Your task to perform on an android device: turn on sleep mode Image 0: 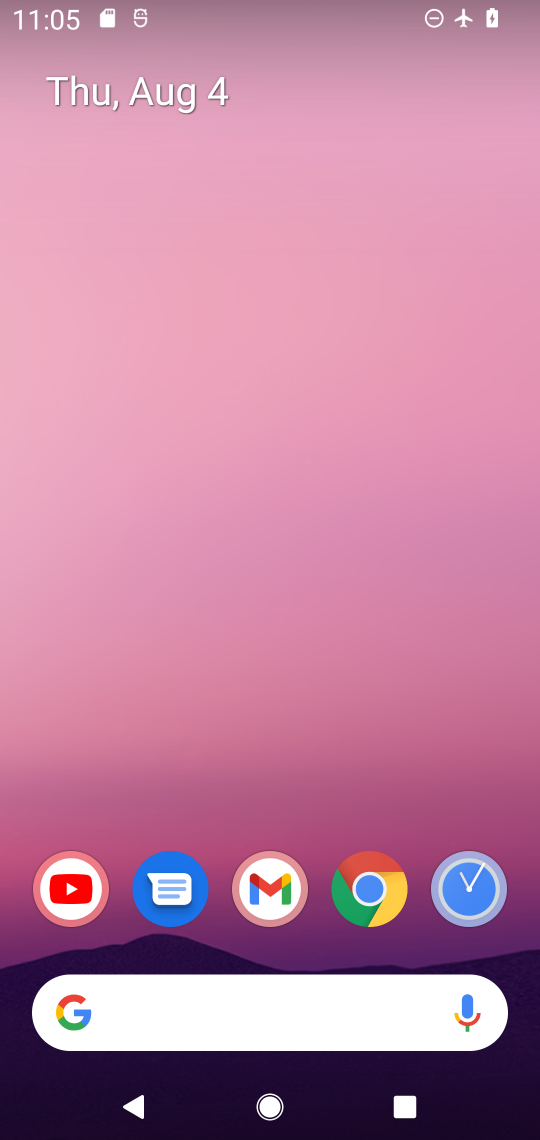
Step 0: press home button
Your task to perform on an android device: turn on sleep mode Image 1: 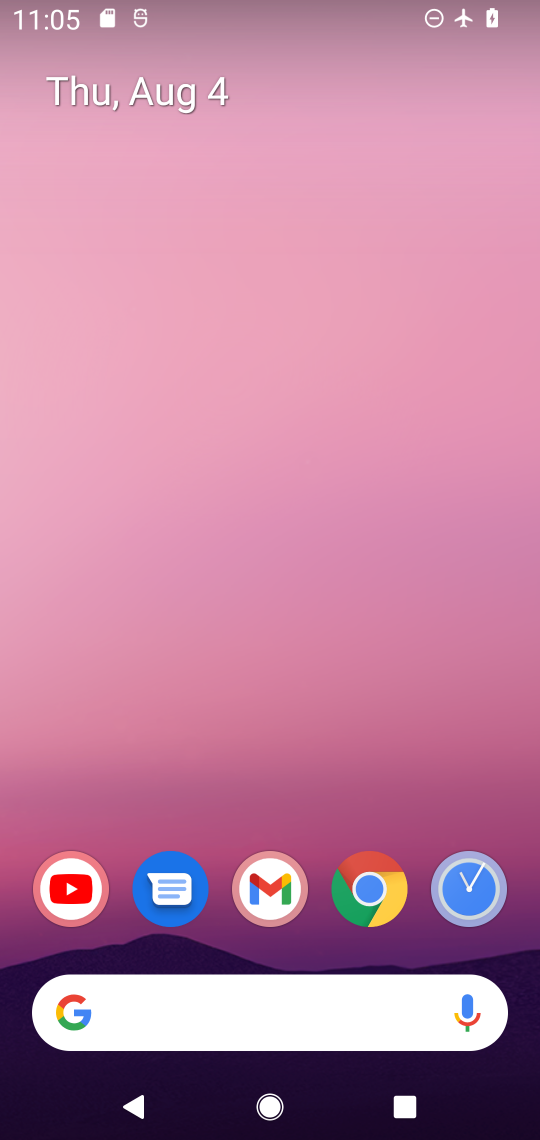
Step 1: drag from (339, 668) to (340, 259)
Your task to perform on an android device: turn on sleep mode Image 2: 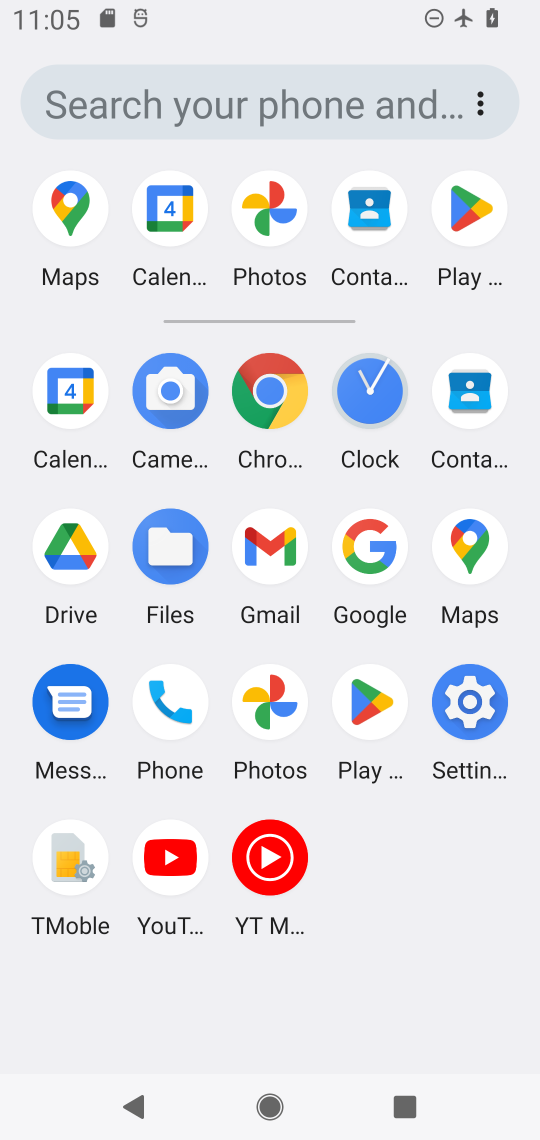
Step 2: click (468, 697)
Your task to perform on an android device: turn on sleep mode Image 3: 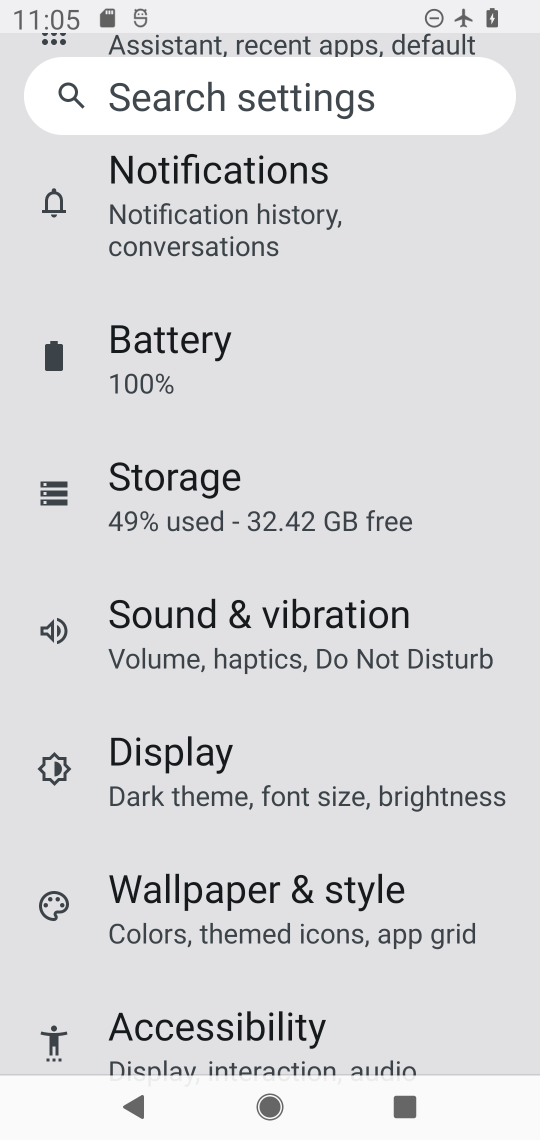
Step 3: drag from (449, 389) to (452, 600)
Your task to perform on an android device: turn on sleep mode Image 4: 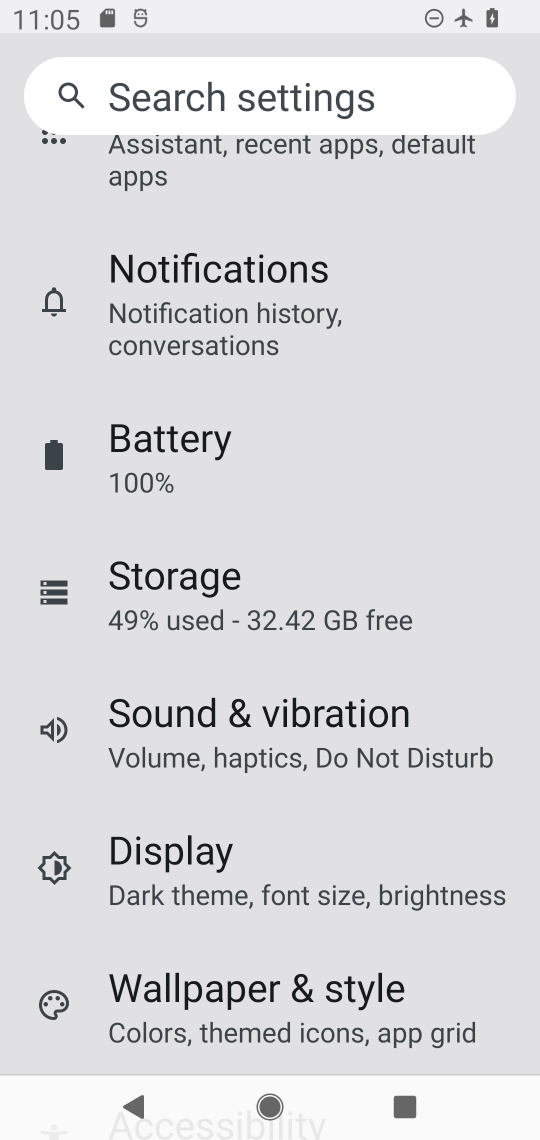
Step 4: drag from (435, 364) to (435, 525)
Your task to perform on an android device: turn on sleep mode Image 5: 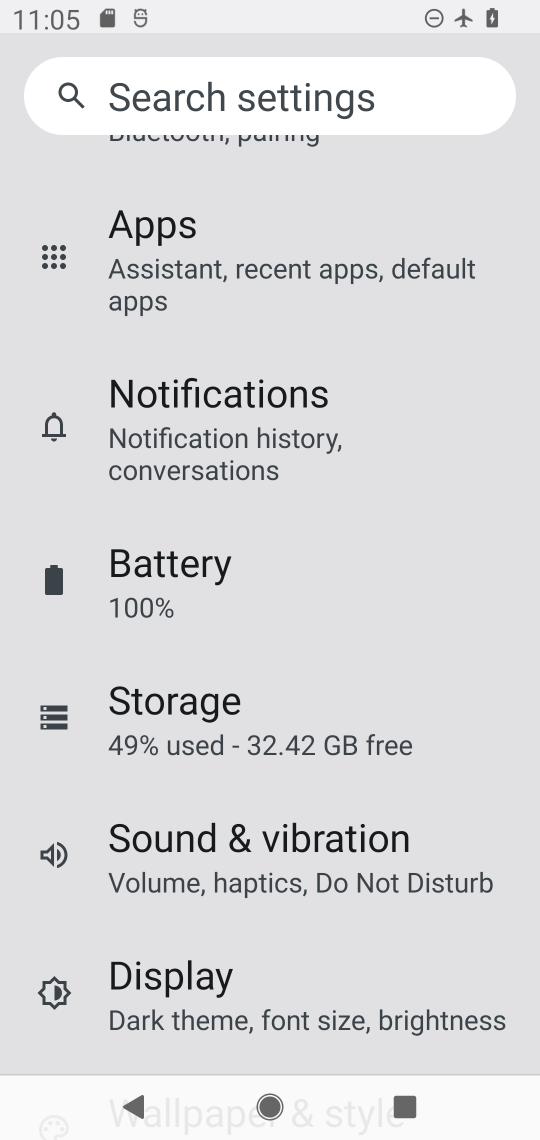
Step 5: drag from (431, 815) to (439, 648)
Your task to perform on an android device: turn on sleep mode Image 6: 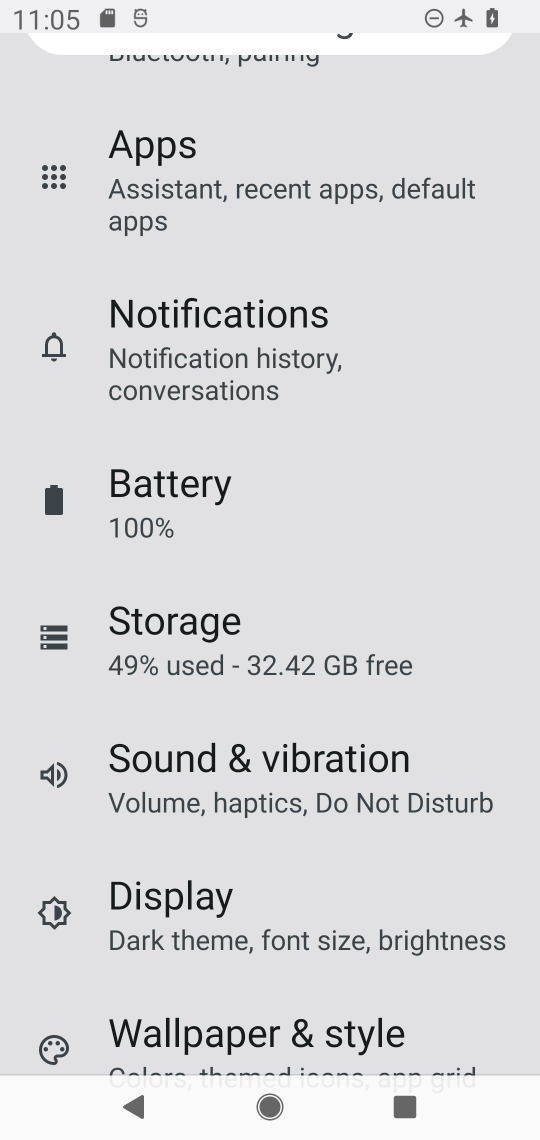
Step 6: drag from (433, 846) to (437, 592)
Your task to perform on an android device: turn on sleep mode Image 7: 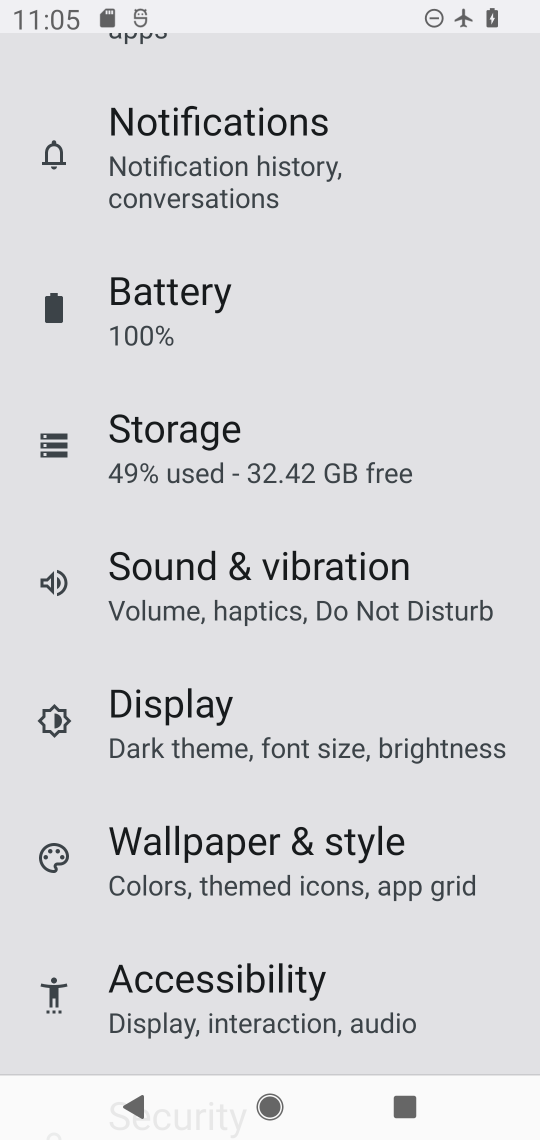
Step 7: drag from (476, 918) to (468, 645)
Your task to perform on an android device: turn on sleep mode Image 8: 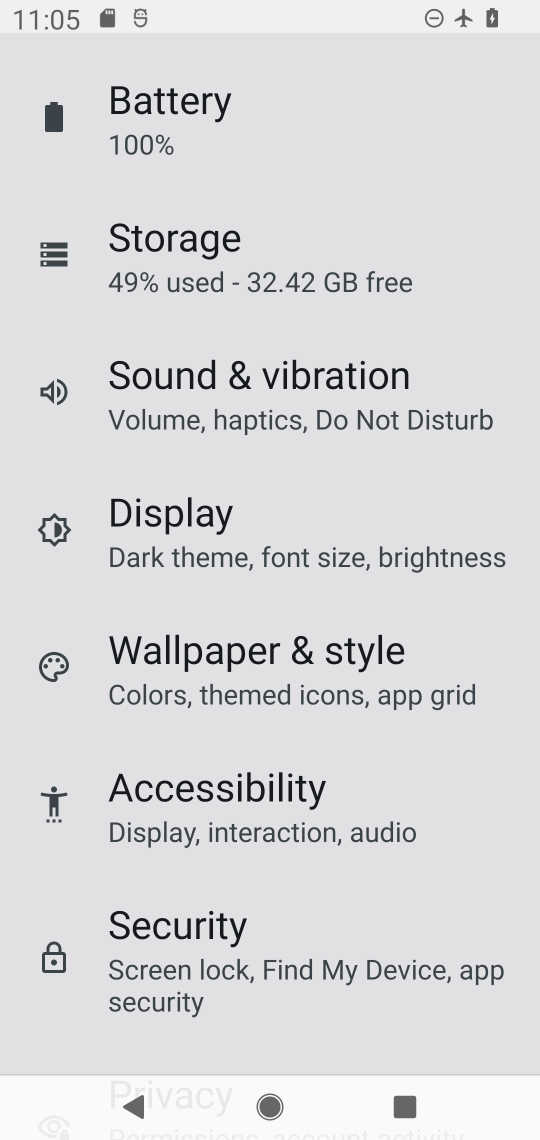
Step 8: click (393, 540)
Your task to perform on an android device: turn on sleep mode Image 9: 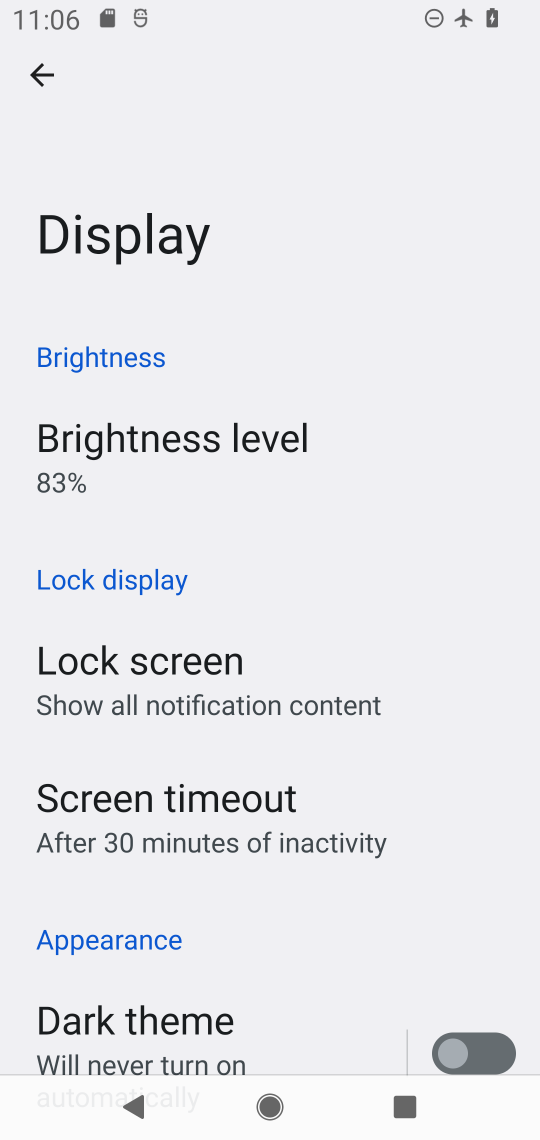
Step 9: task complete